Your task to perform on an android device: Open privacy settings Image 0: 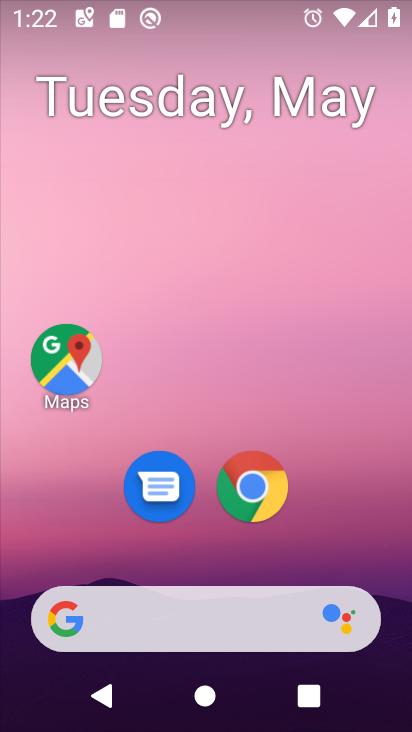
Step 0: drag from (26, 649) to (403, 115)
Your task to perform on an android device: Open privacy settings Image 1: 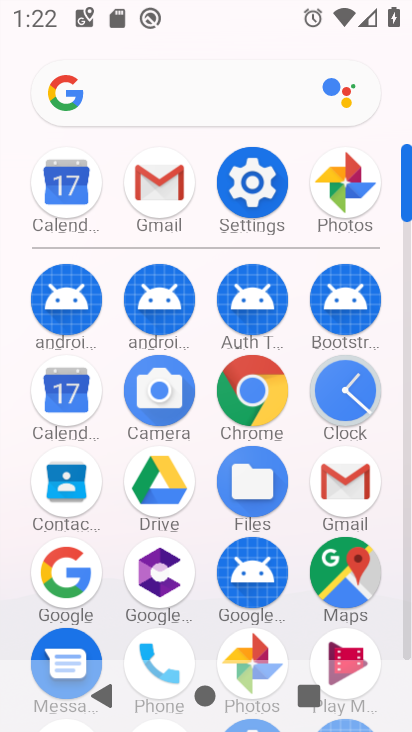
Step 1: click (249, 192)
Your task to perform on an android device: Open privacy settings Image 2: 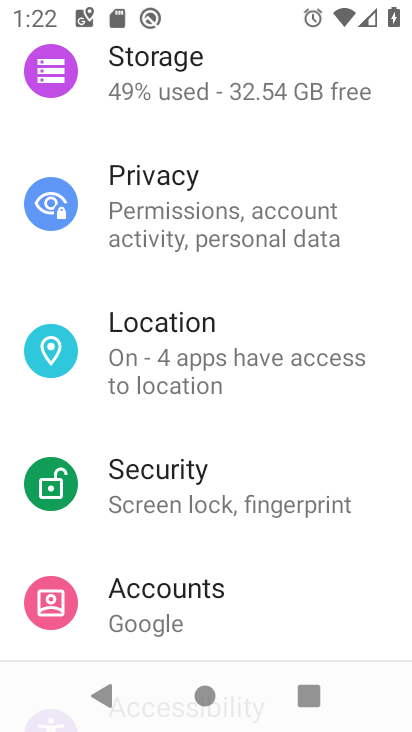
Step 2: click (193, 226)
Your task to perform on an android device: Open privacy settings Image 3: 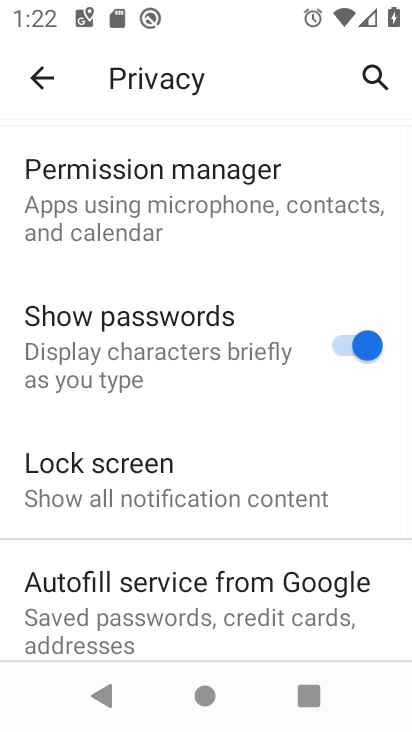
Step 3: task complete